Your task to perform on an android device: Set the phone to "Do not disturb". Image 0: 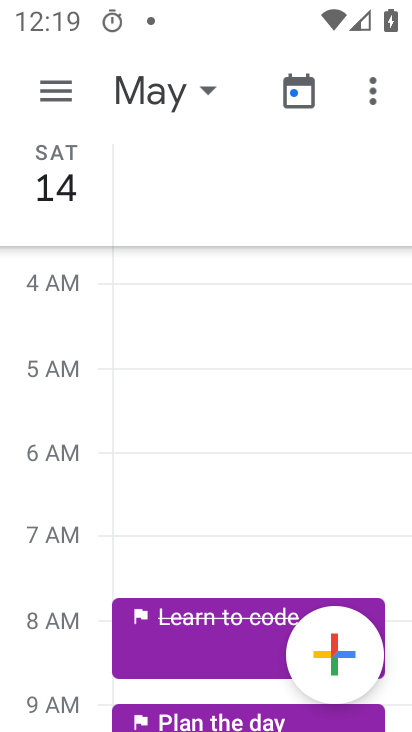
Step 0: press home button
Your task to perform on an android device: Set the phone to "Do not disturb". Image 1: 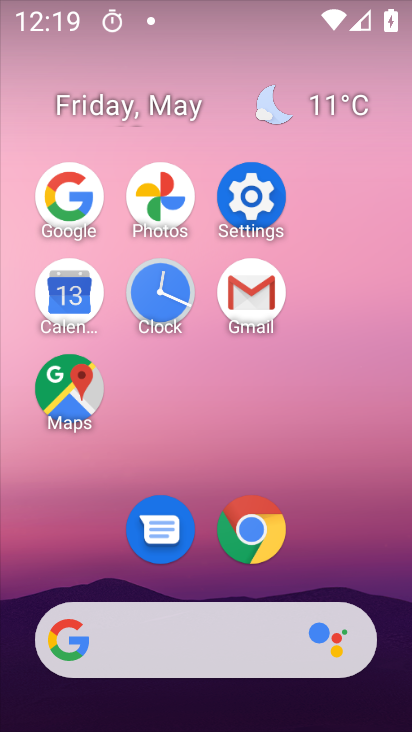
Step 1: click (278, 202)
Your task to perform on an android device: Set the phone to "Do not disturb". Image 2: 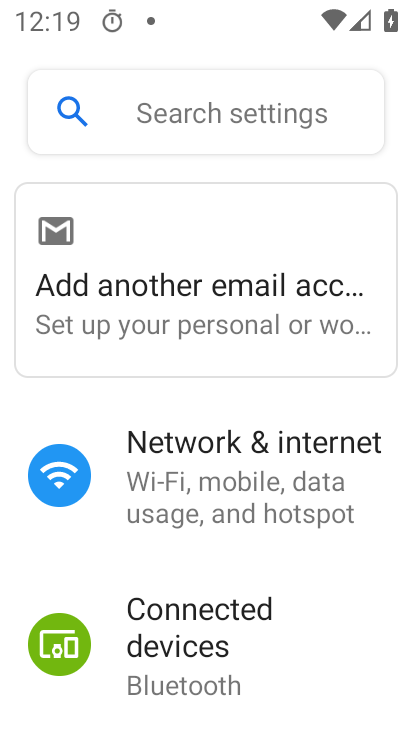
Step 2: drag from (303, 539) to (309, 193)
Your task to perform on an android device: Set the phone to "Do not disturb". Image 3: 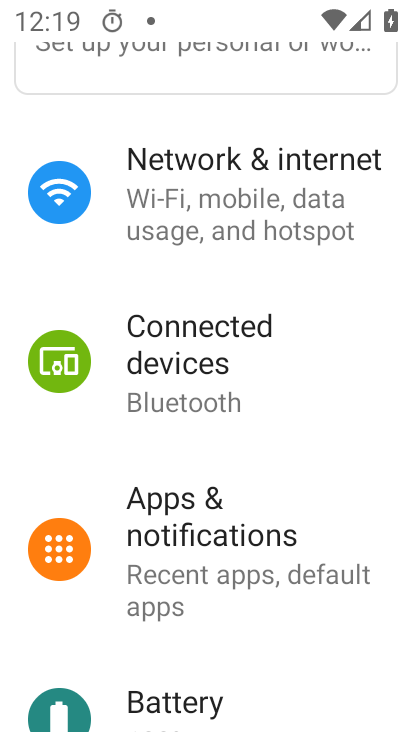
Step 3: drag from (268, 616) to (246, 202)
Your task to perform on an android device: Set the phone to "Do not disturb". Image 4: 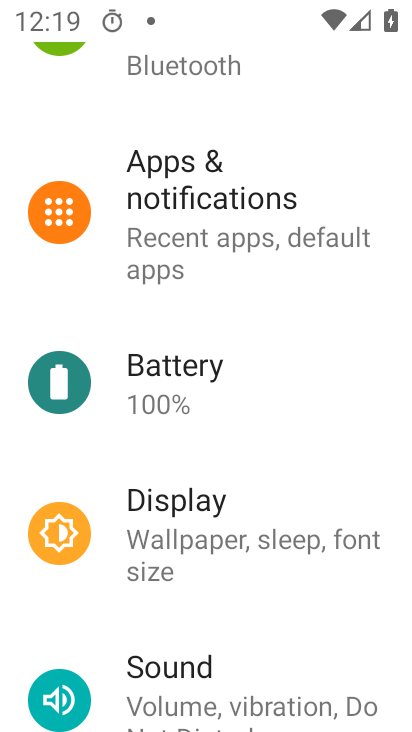
Step 4: drag from (281, 608) to (263, 236)
Your task to perform on an android device: Set the phone to "Do not disturb". Image 5: 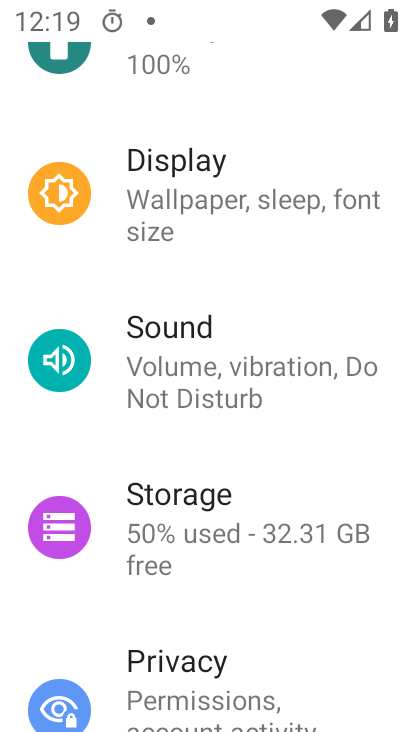
Step 5: click (272, 380)
Your task to perform on an android device: Set the phone to "Do not disturb". Image 6: 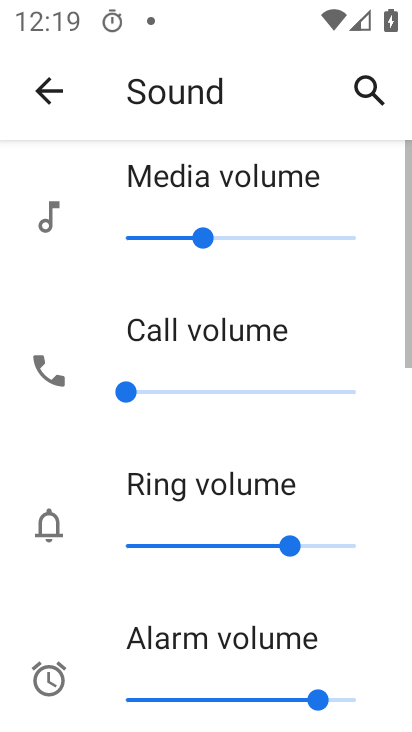
Step 6: drag from (330, 619) to (333, 213)
Your task to perform on an android device: Set the phone to "Do not disturb". Image 7: 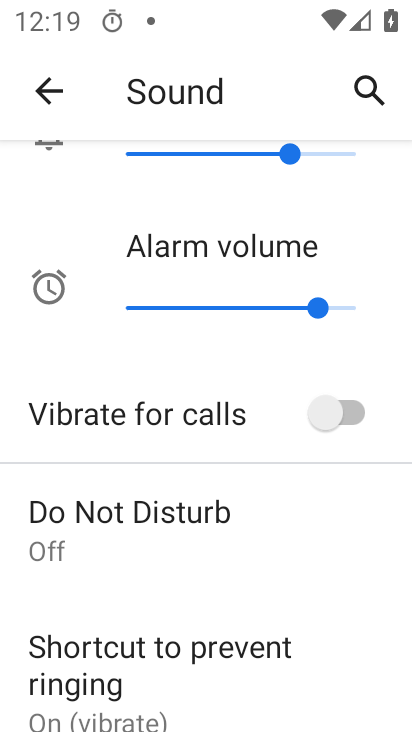
Step 7: click (214, 528)
Your task to perform on an android device: Set the phone to "Do not disturb". Image 8: 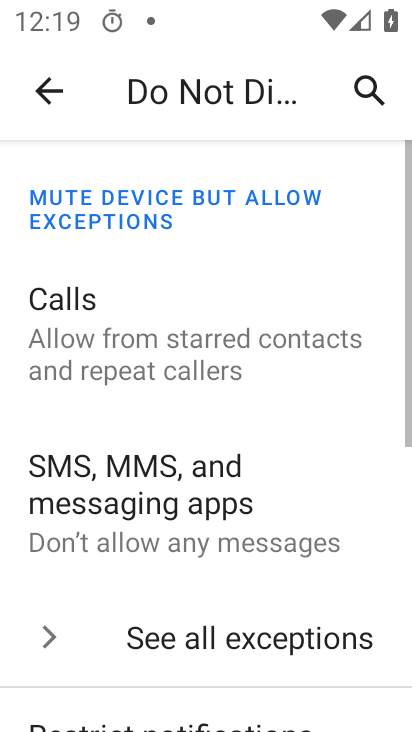
Step 8: drag from (254, 610) to (246, 217)
Your task to perform on an android device: Set the phone to "Do not disturb". Image 9: 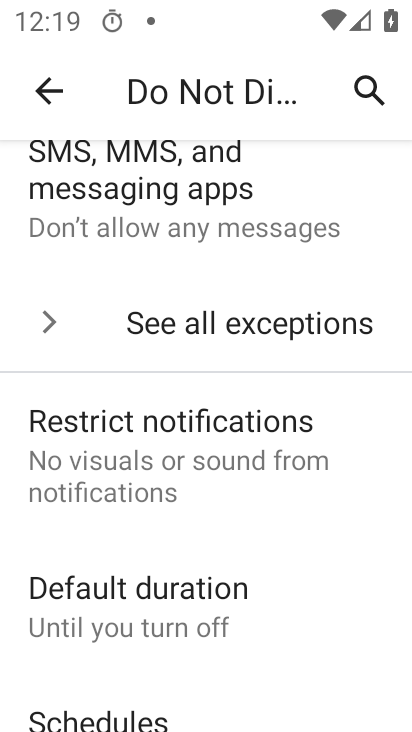
Step 9: drag from (263, 620) to (252, 206)
Your task to perform on an android device: Set the phone to "Do not disturb". Image 10: 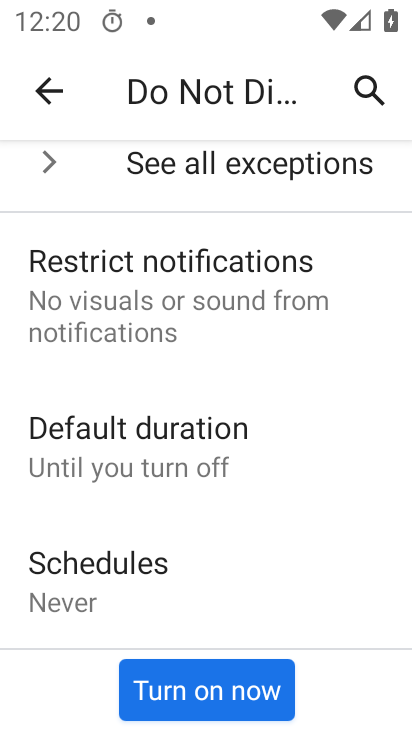
Step 10: drag from (298, 557) to (293, 171)
Your task to perform on an android device: Set the phone to "Do not disturb". Image 11: 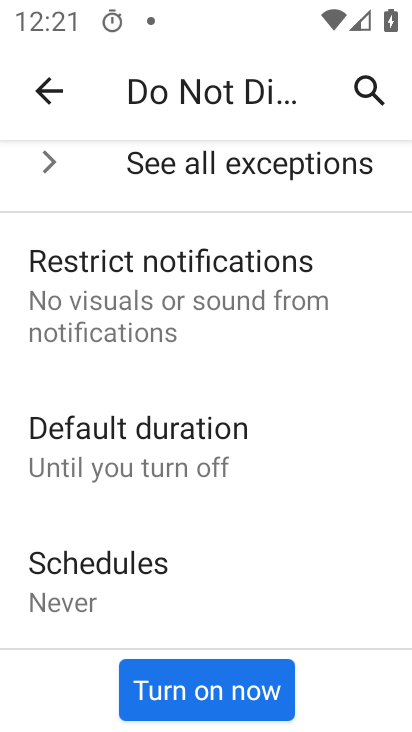
Step 11: click (240, 699)
Your task to perform on an android device: Set the phone to "Do not disturb". Image 12: 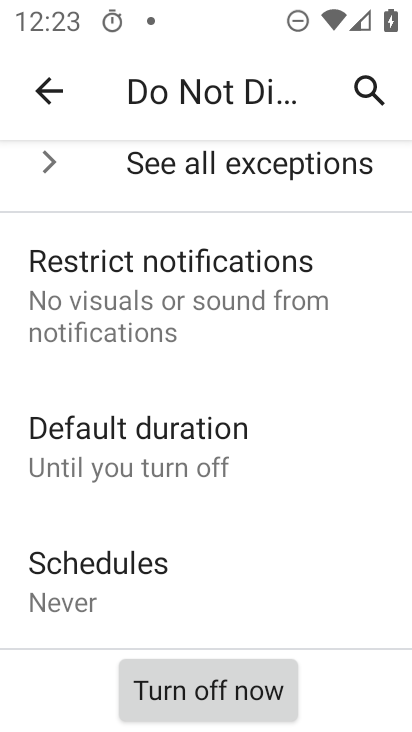
Step 12: task complete